Your task to perform on an android device: open the mobile data screen to see how much data has been used Image 0: 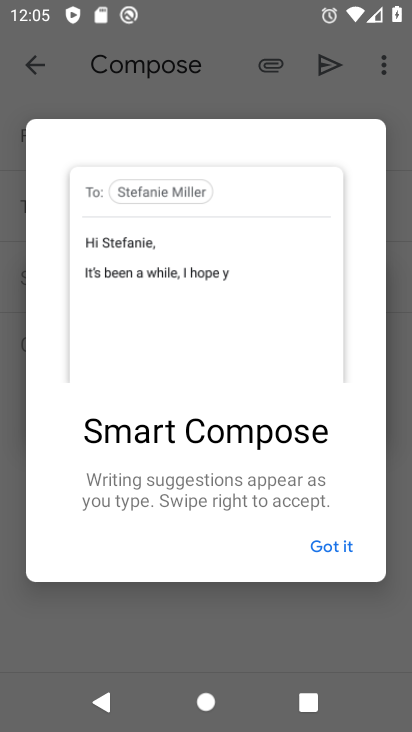
Step 0: click (331, 593)
Your task to perform on an android device: open the mobile data screen to see how much data has been used Image 1: 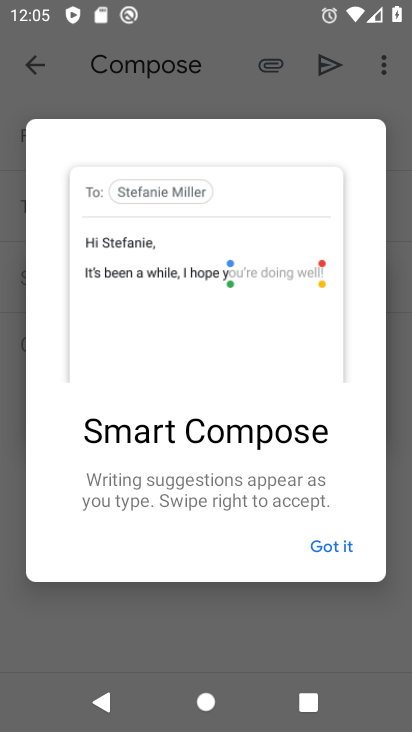
Step 1: press home button
Your task to perform on an android device: open the mobile data screen to see how much data has been used Image 2: 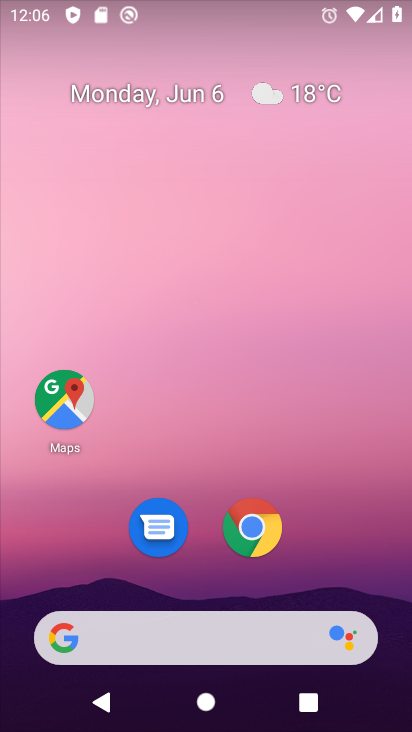
Step 2: drag from (186, 611) to (403, 5)
Your task to perform on an android device: open the mobile data screen to see how much data has been used Image 3: 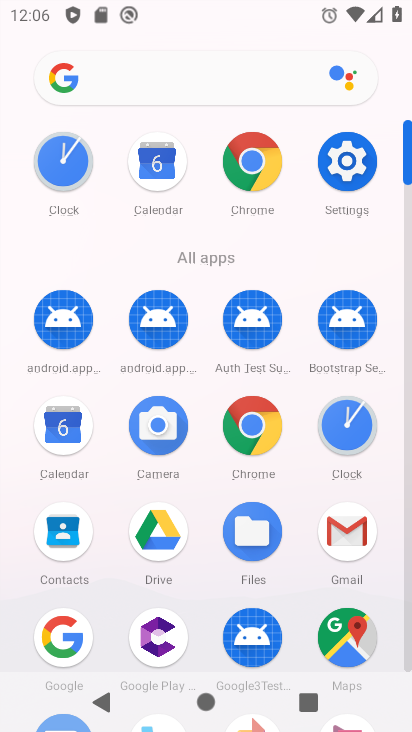
Step 3: click (349, 166)
Your task to perform on an android device: open the mobile data screen to see how much data has been used Image 4: 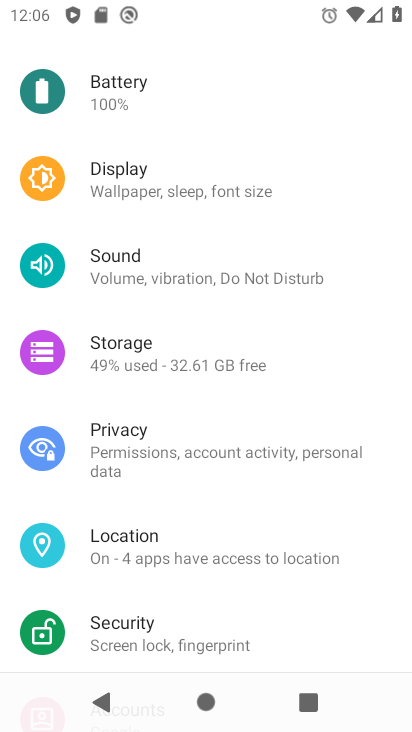
Step 4: drag from (243, 196) to (218, 727)
Your task to perform on an android device: open the mobile data screen to see how much data has been used Image 5: 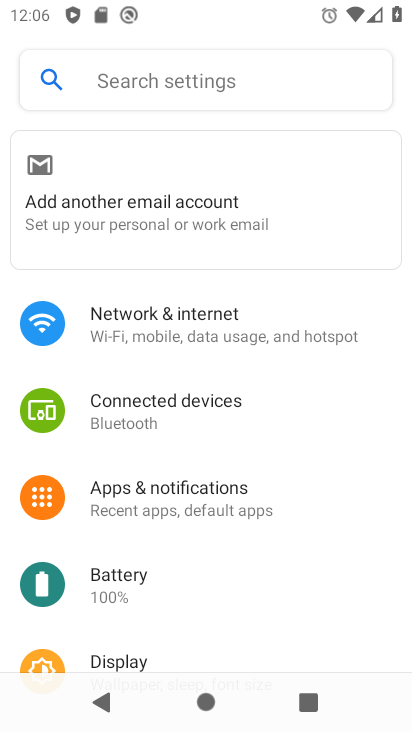
Step 5: click (210, 310)
Your task to perform on an android device: open the mobile data screen to see how much data has been used Image 6: 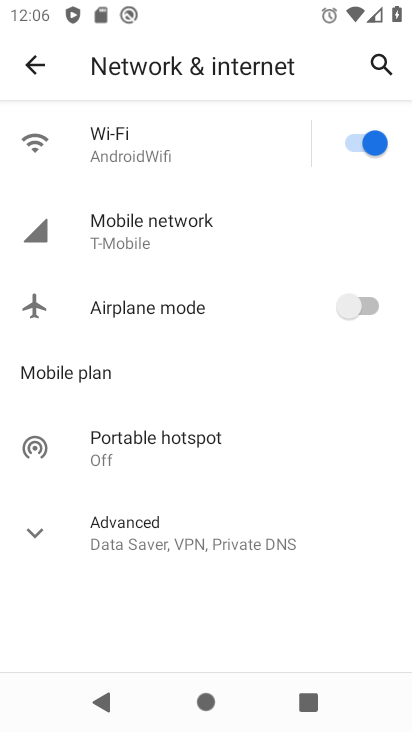
Step 6: click (189, 222)
Your task to perform on an android device: open the mobile data screen to see how much data has been used Image 7: 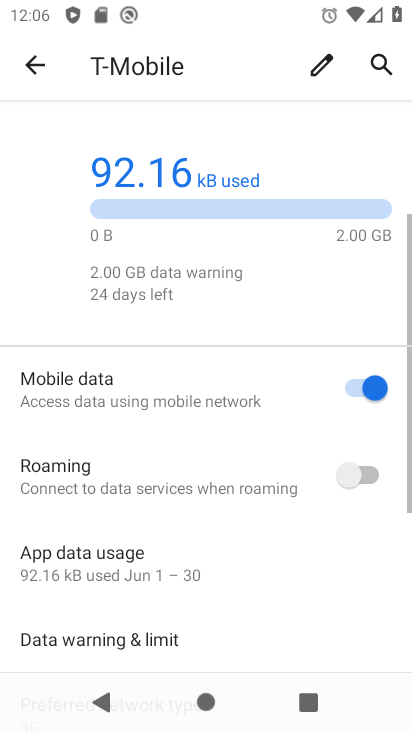
Step 7: task complete